Your task to perform on an android device: Open calendar and show me the first week of next month Image 0: 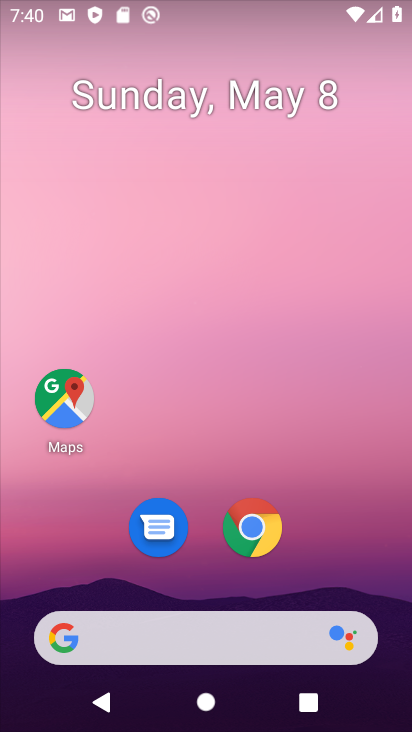
Step 0: drag from (301, 556) to (300, 222)
Your task to perform on an android device: Open calendar and show me the first week of next month Image 1: 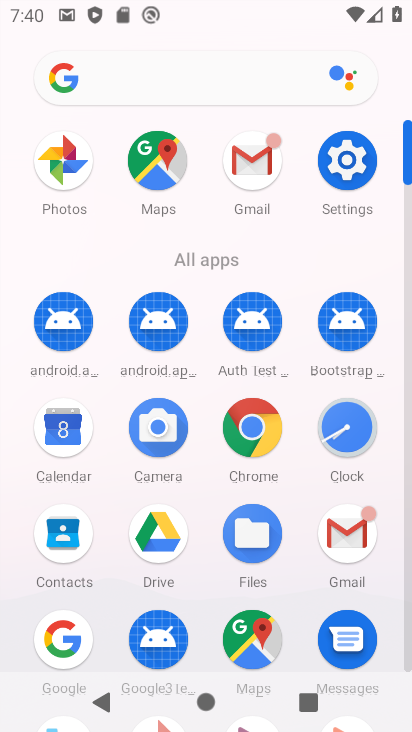
Step 1: click (70, 427)
Your task to perform on an android device: Open calendar and show me the first week of next month Image 2: 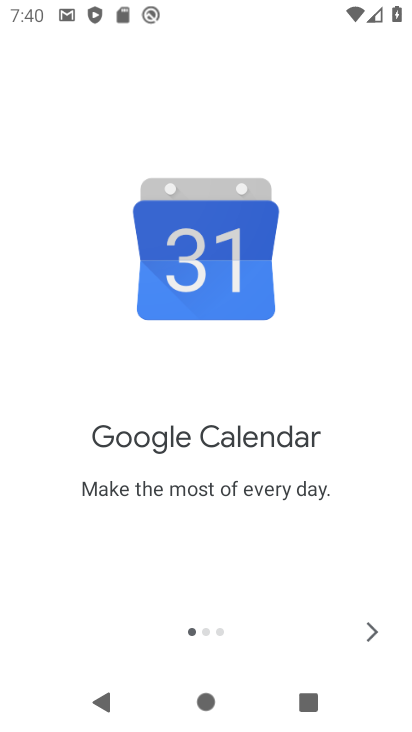
Step 2: click (376, 631)
Your task to perform on an android device: Open calendar and show me the first week of next month Image 3: 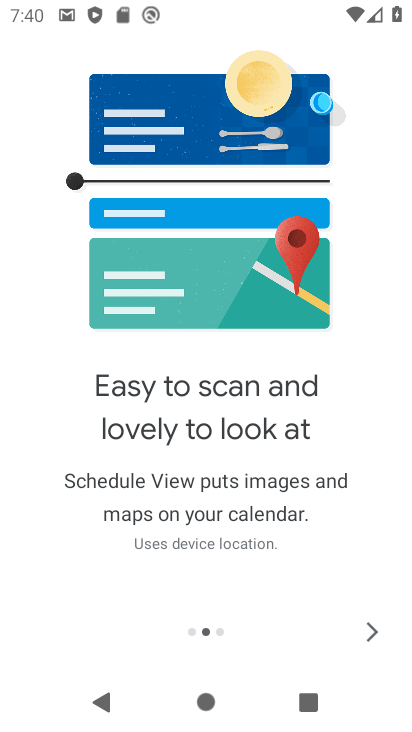
Step 3: click (376, 631)
Your task to perform on an android device: Open calendar and show me the first week of next month Image 4: 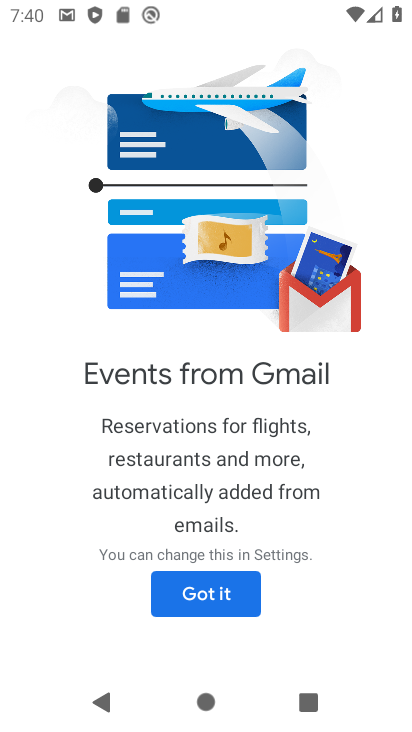
Step 4: click (229, 607)
Your task to perform on an android device: Open calendar and show me the first week of next month Image 5: 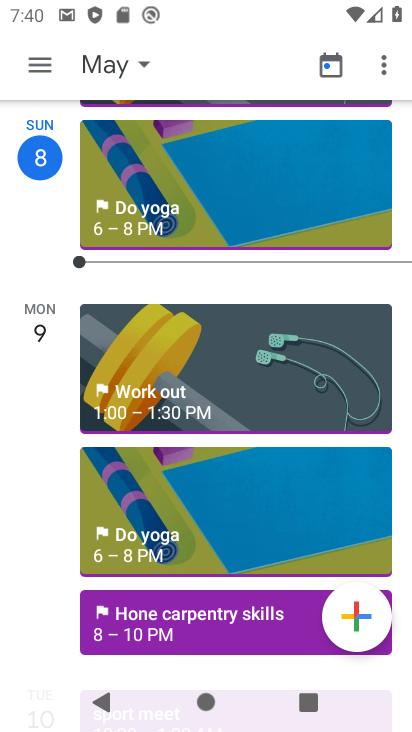
Step 5: click (123, 63)
Your task to perform on an android device: Open calendar and show me the first week of next month Image 6: 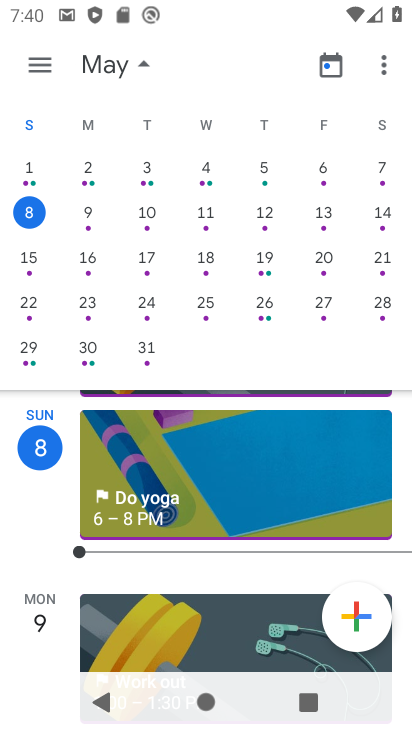
Step 6: task complete